Your task to perform on an android device: delete a single message in the gmail app Image 0: 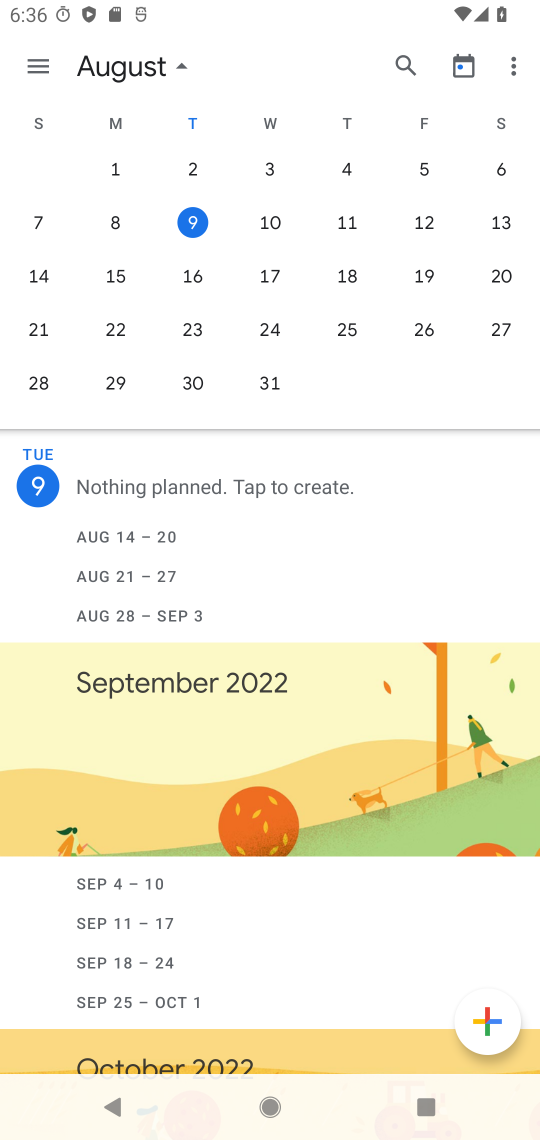
Step 0: press home button
Your task to perform on an android device: delete a single message in the gmail app Image 1: 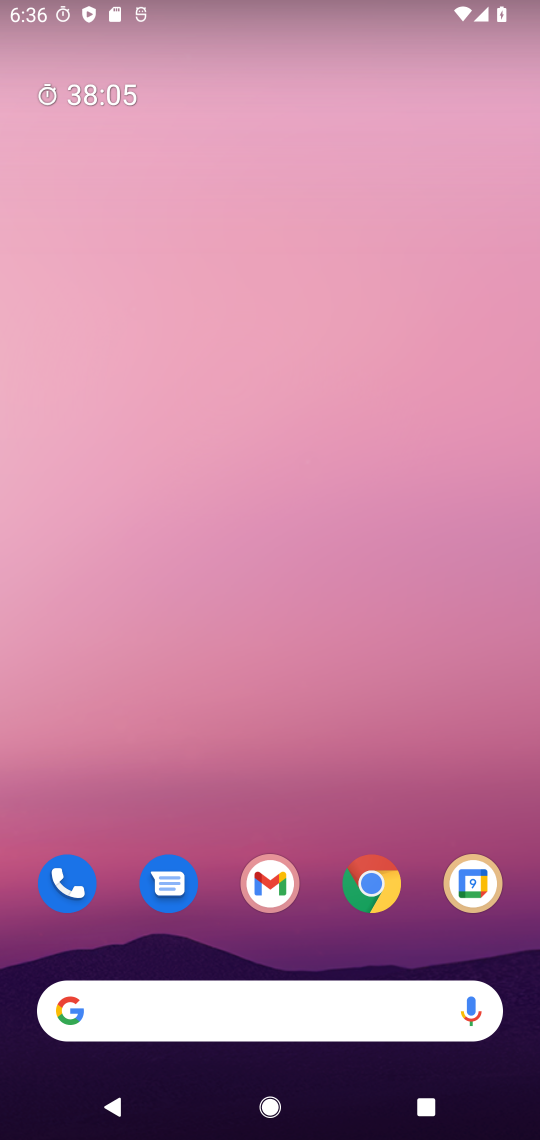
Step 1: click (273, 868)
Your task to perform on an android device: delete a single message in the gmail app Image 2: 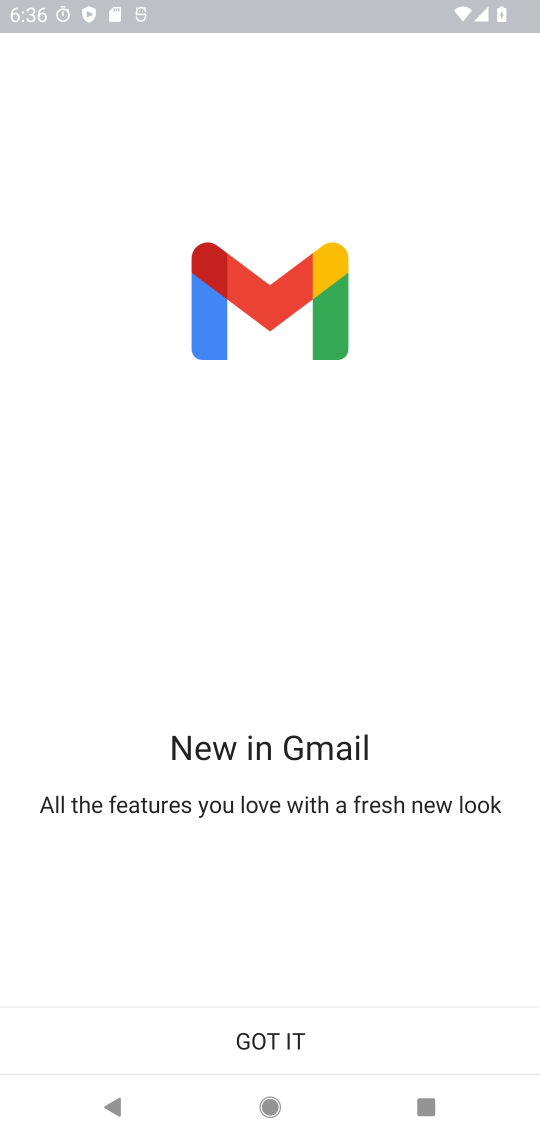
Step 2: click (354, 1014)
Your task to perform on an android device: delete a single message in the gmail app Image 3: 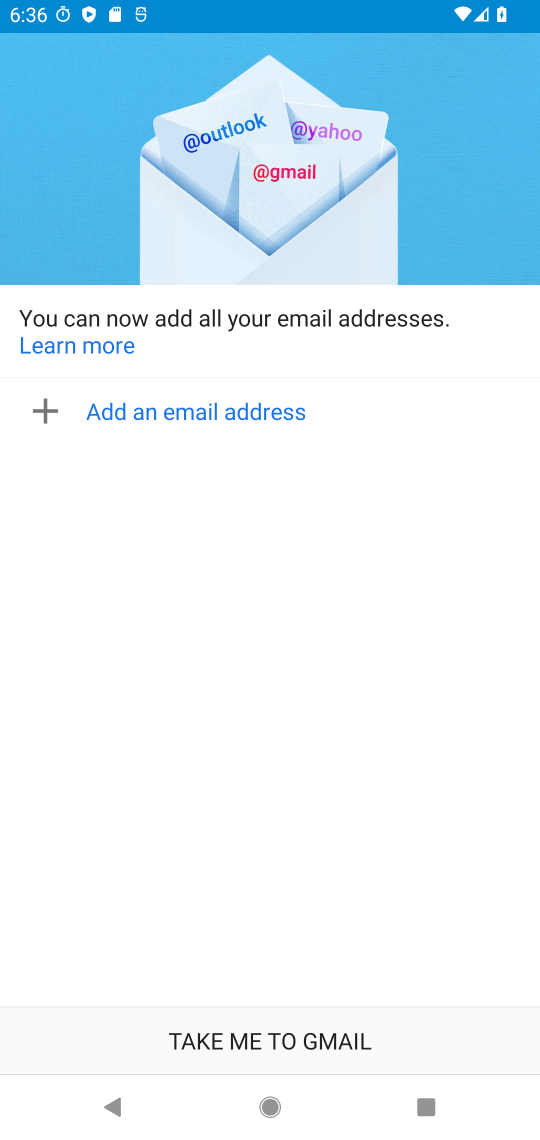
Step 3: task complete